Your task to perform on an android device: Go to Wikipedia Image 0: 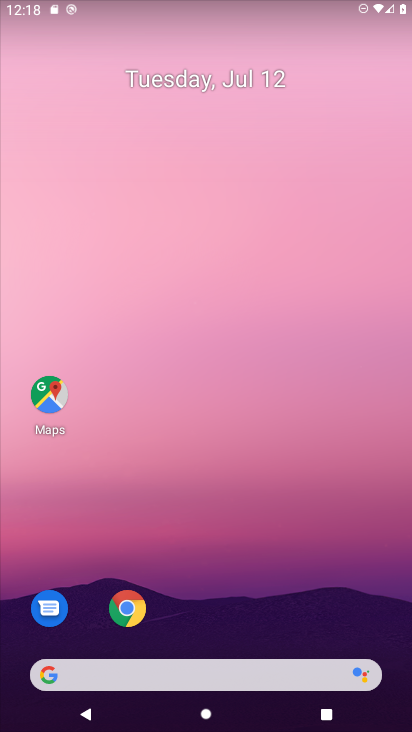
Step 0: drag from (142, 406) to (322, 29)
Your task to perform on an android device: Go to Wikipedia Image 1: 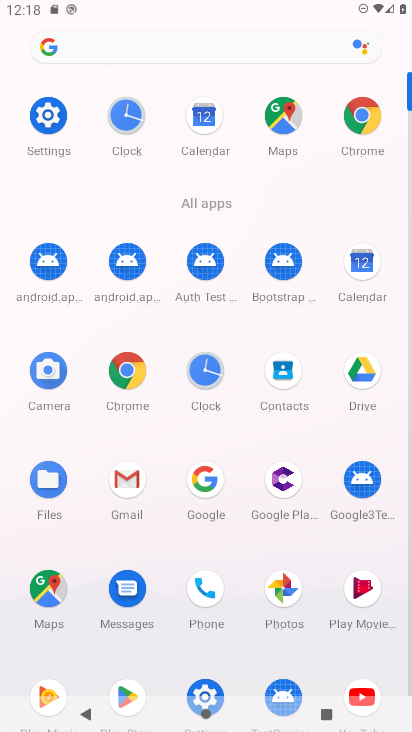
Step 1: click (128, 381)
Your task to perform on an android device: Go to Wikipedia Image 2: 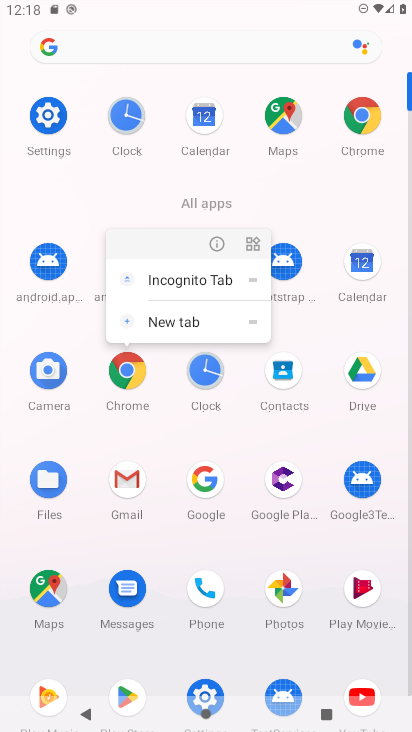
Step 2: click (126, 374)
Your task to perform on an android device: Go to Wikipedia Image 3: 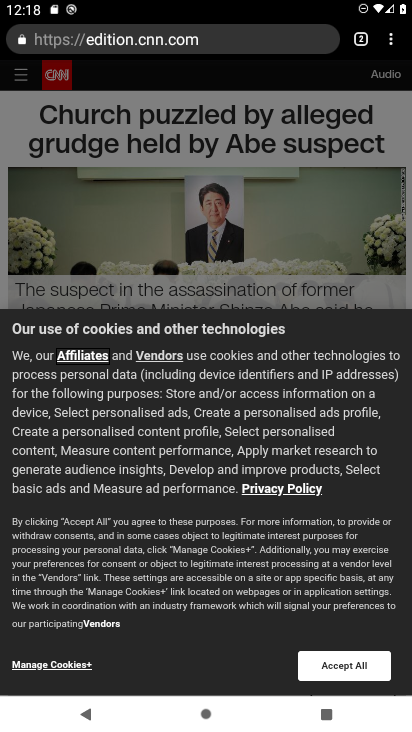
Step 3: click (356, 43)
Your task to perform on an android device: Go to Wikipedia Image 4: 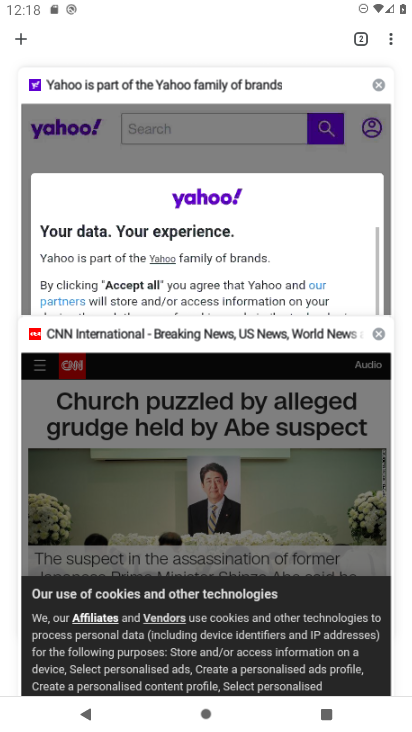
Step 4: click (24, 39)
Your task to perform on an android device: Go to Wikipedia Image 5: 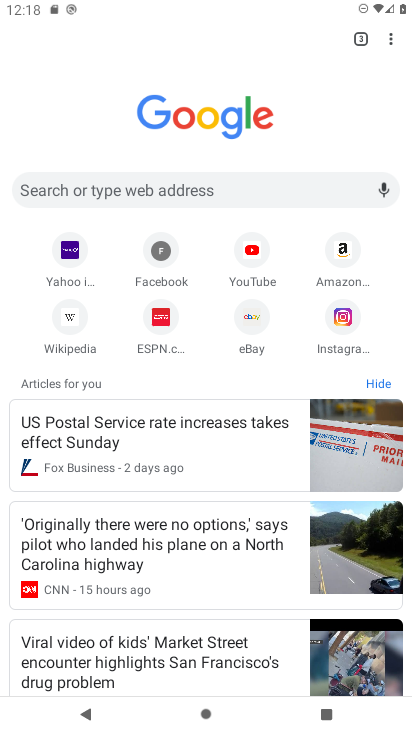
Step 5: click (72, 335)
Your task to perform on an android device: Go to Wikipedia Image 6: 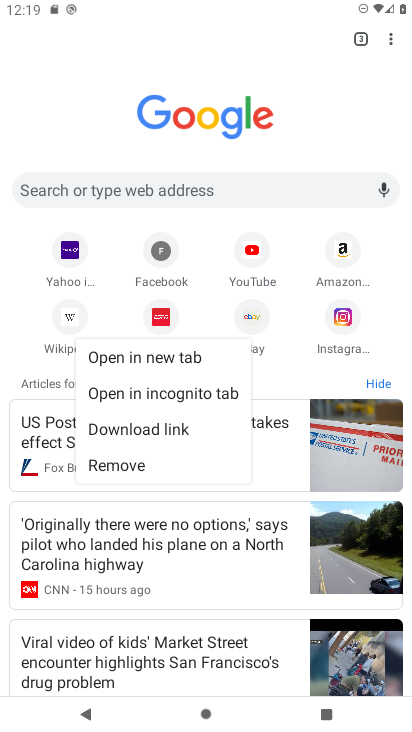
Step 6: click (72, 311)
Your task to perform on an android device: Go to Wikipedia Image 7: 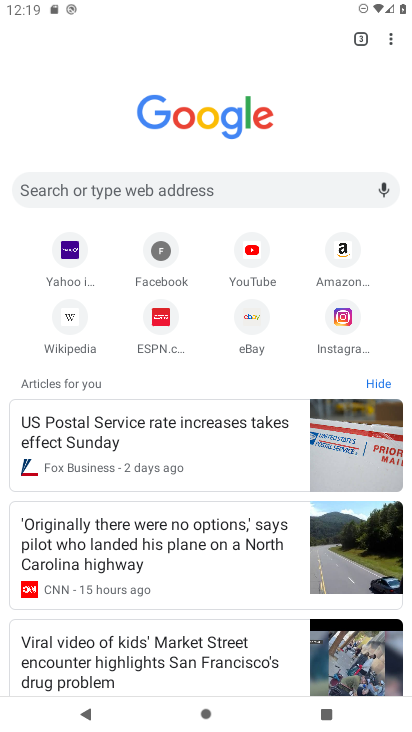
Step 7: click (70, 319)
Your task to perform on an android device: Go to Wikipedia Image 8: 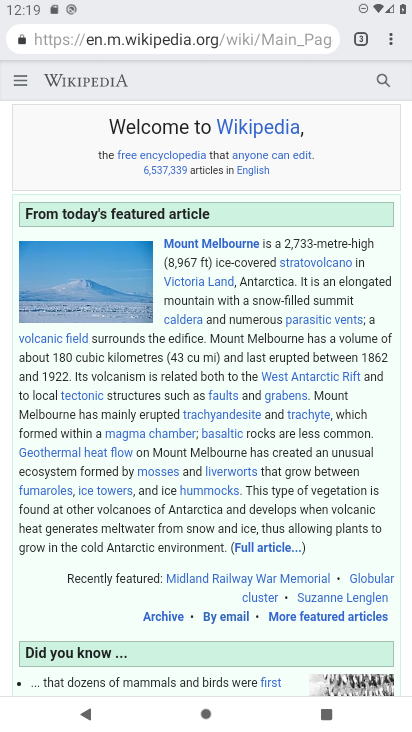
Step 8: task complete